Your task to perform on an android device: Go to Maps Image 0: 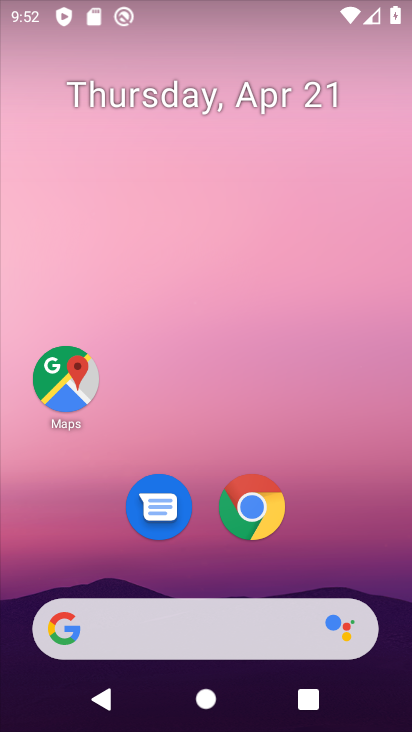
Step 0: click (48, 382)
Your task to perform on an android device: Go to Maps Image 1: 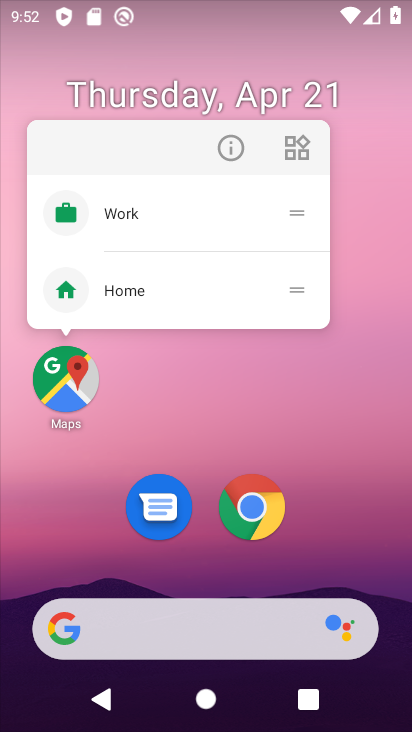
Step 1: click (67, 386)
Your task to perform on an android device: Go to Maps Image 2: 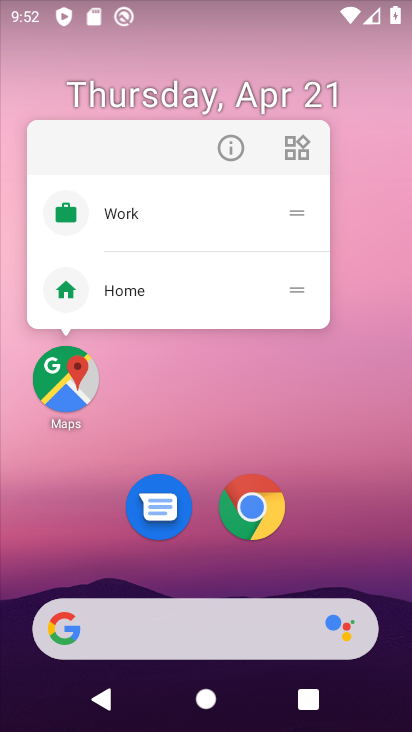
Step 2: click (64, 377)
Your task to perform on an android device: Go to Maps Image 3: 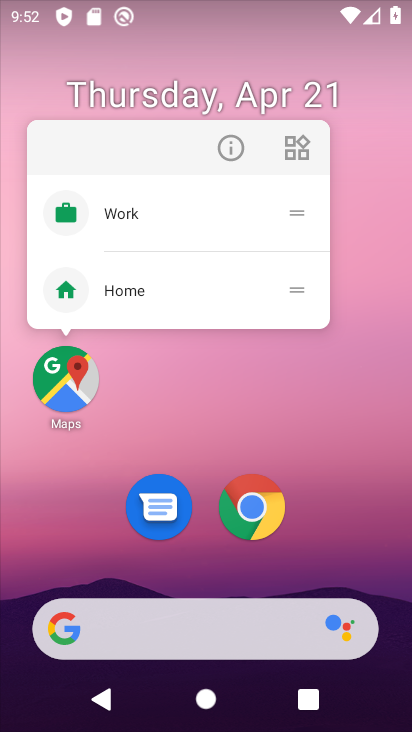
Step 3: click (67, 380)
Your task to perform on an android device: Go to Maps Image 4: 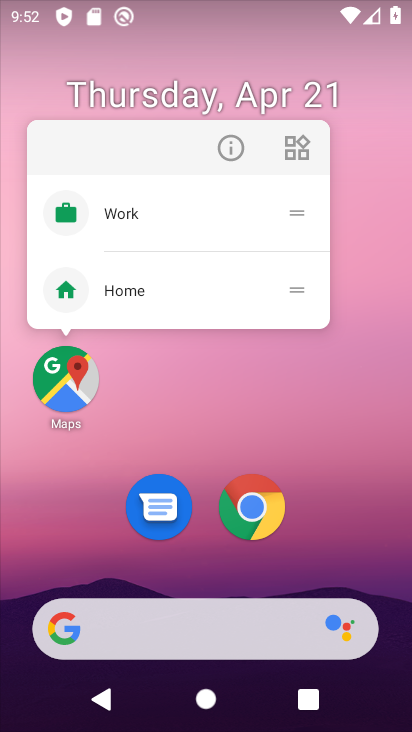
Step 4: click (74, 390)
Your task to perform on an android device: Go to Maps Image 5: 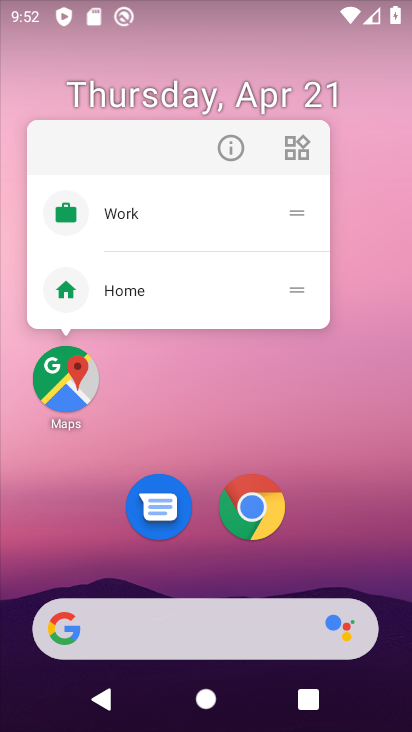
Step 5: click (64, 385)
Your task to perform on an android device: Go to Maps Image 6: 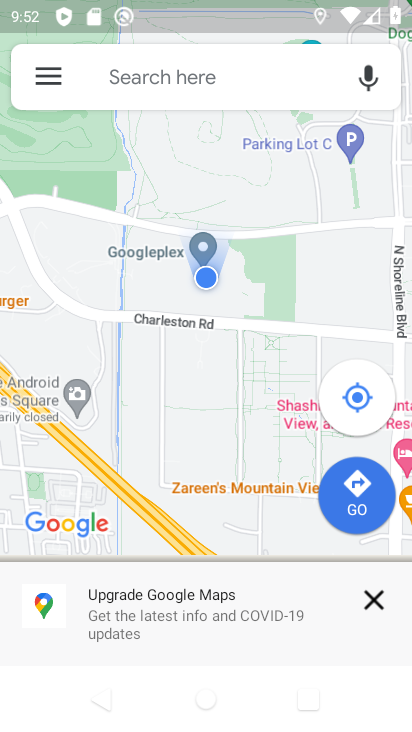
Step 6: click (368, 604)
Your task to perform on an android device: Go to Maps Image 7: 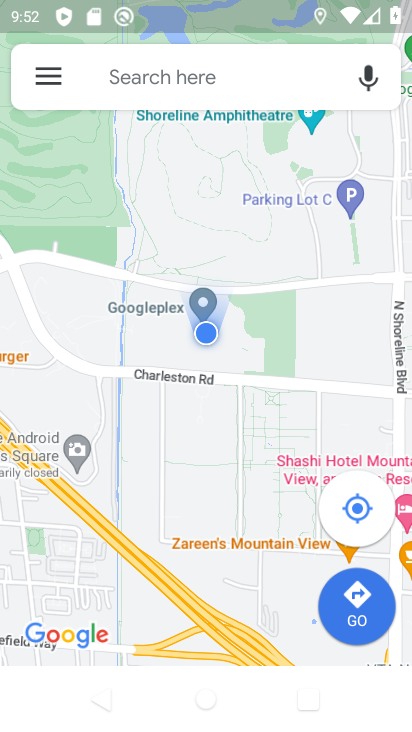
Step 7: task complete